Your task to perform on an android device: open a bookmark in the chrome app Image 0: 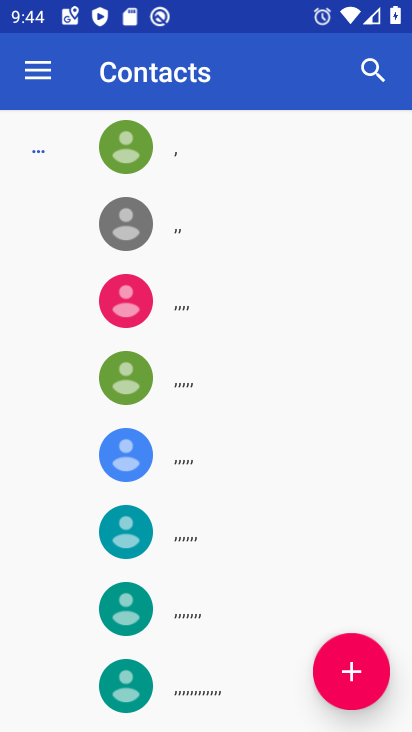
Step 0: press back button
Your task to perform on an android device: open a bookmark in the chrome app Image 1: 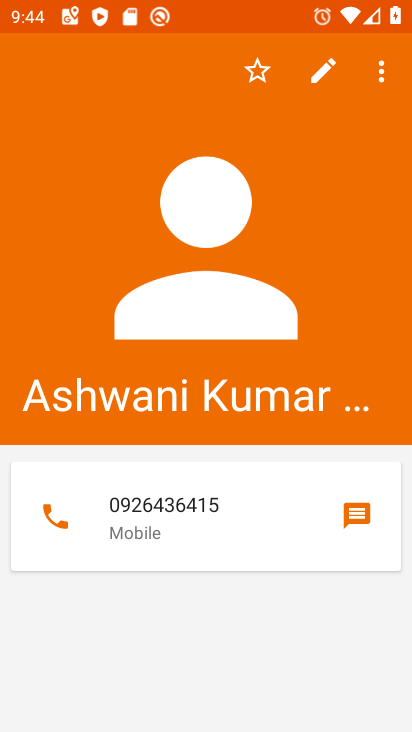
Step 1: press back button
Your task to perform on an android device: open a bookmark in the chrome app Image 2: 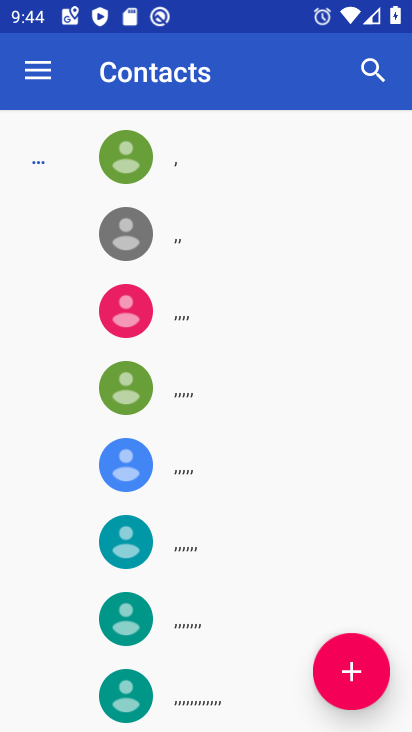
Step 2: press back button
Your task to perform on an android device: open a bookmark in the chrome app Image 3: 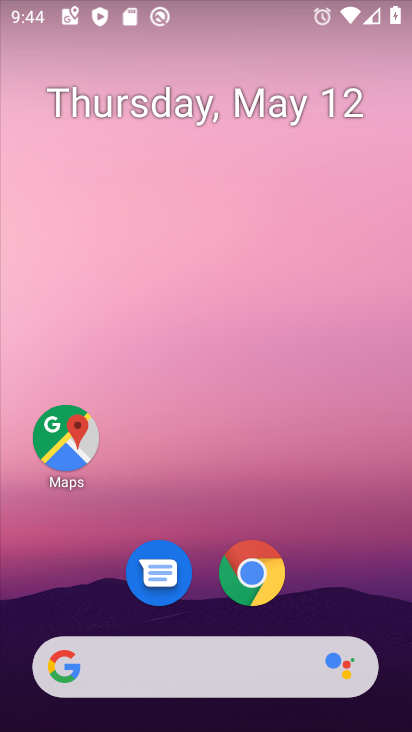
Step 3: click (252, 576)
Your task to perform on an android device: open a bookmark in the chrome app Image 4: 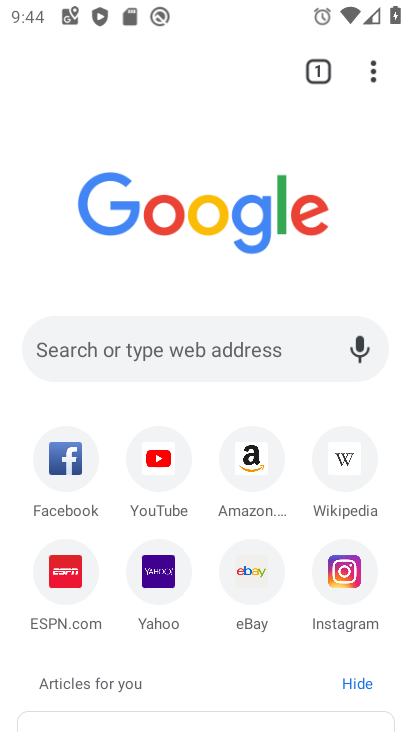
Step 4: click (370, 71)
Your task to perform on an android device: open a bookmark in the chrome app Image 5: 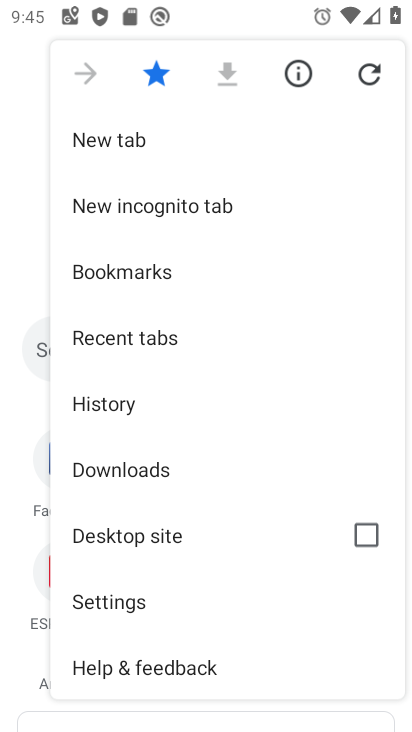
Step 5: click (162, 272)
Your task to perform on an android device: open a bookmark in the chrome app Image 6: 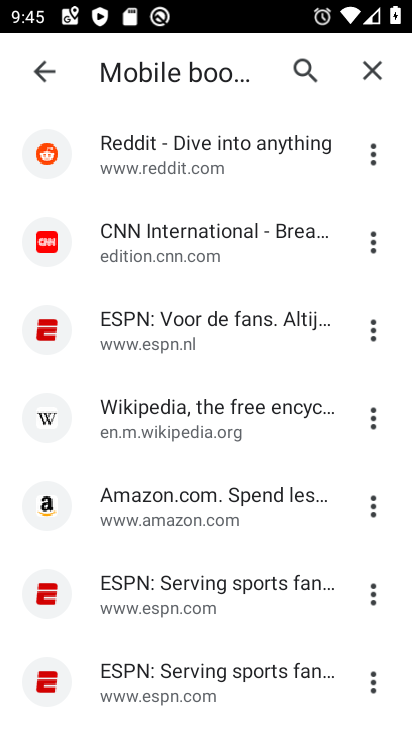
Step 6: task complete